Your task to perform on an android device: open app "Google Duo" Image 0: 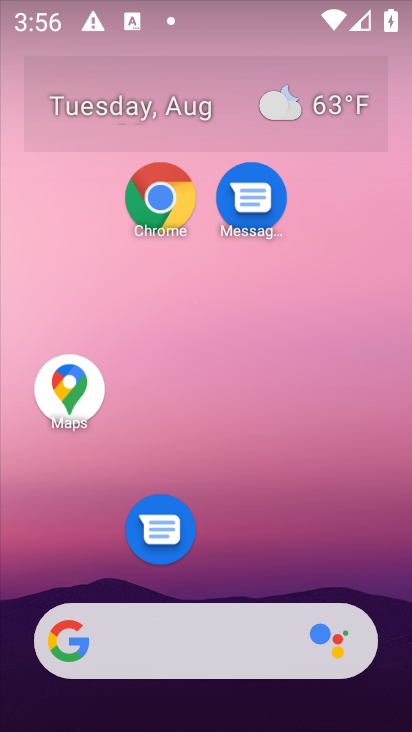
Step 0: drag from (248, 306) to (221, 0)
Your task to perform on an android device: open app "Google Duo" Image 1: 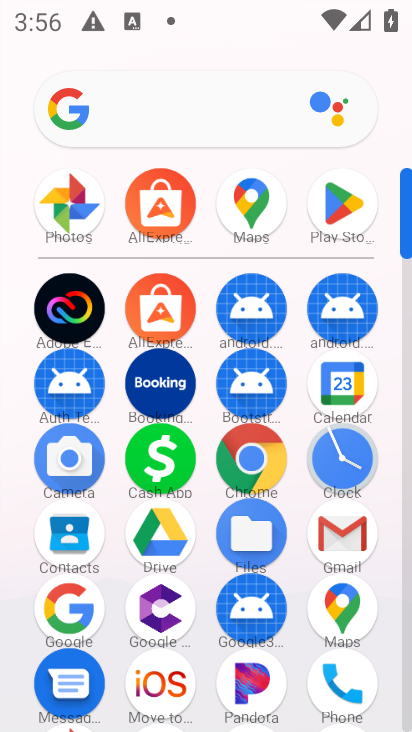
Step 1: click (327, 203)
Your task to perform on an android device: open app "Google Duo" Image 2: 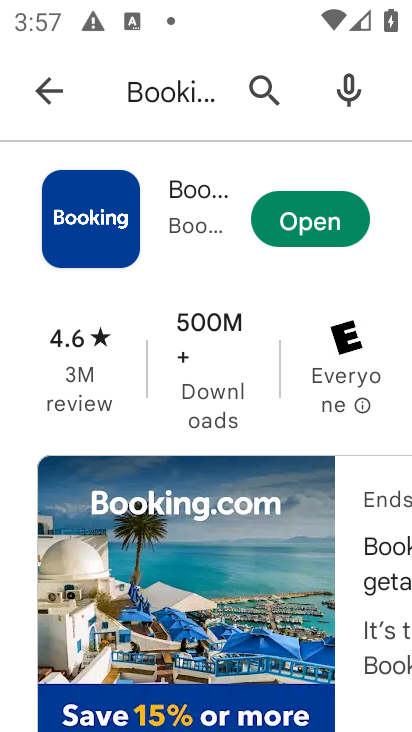
Step 2: press back button
Your task to perform on an android device: open app "Google Duo" Image 3: 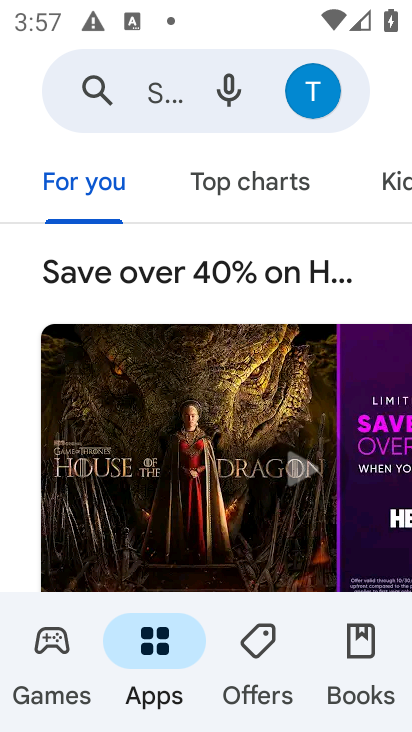
Step 3: click (132, 112)
Your task to perform on an android device: open app "Google Duo" Image 4: 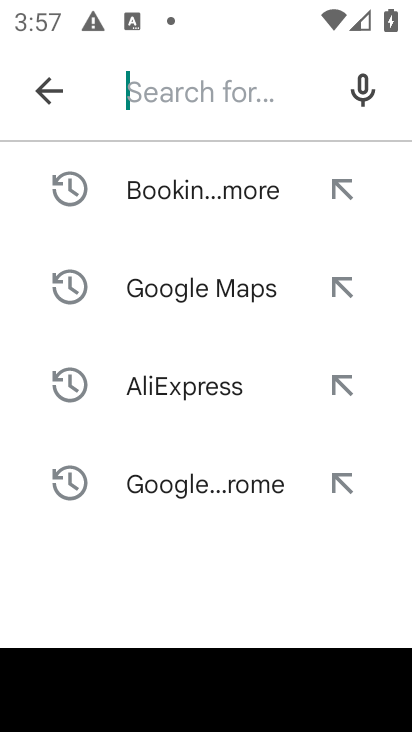
Step 4: type "Google Duo"
Your task to perform on an android device: open app "Google Duo" Image 5: 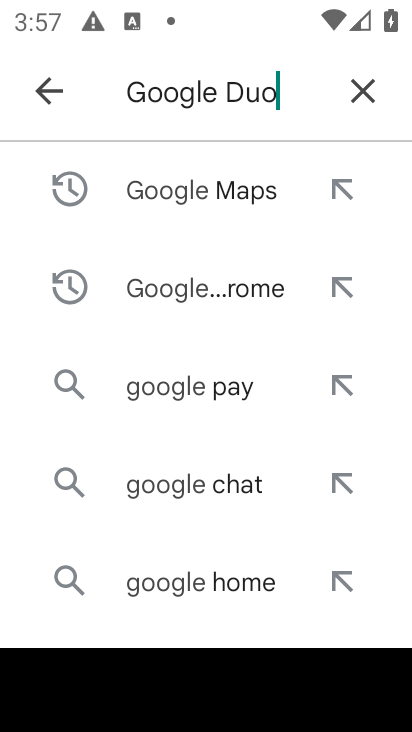
Step 5: press enter
Your task to perform on an android device: open app "Google Duo" Image 6: 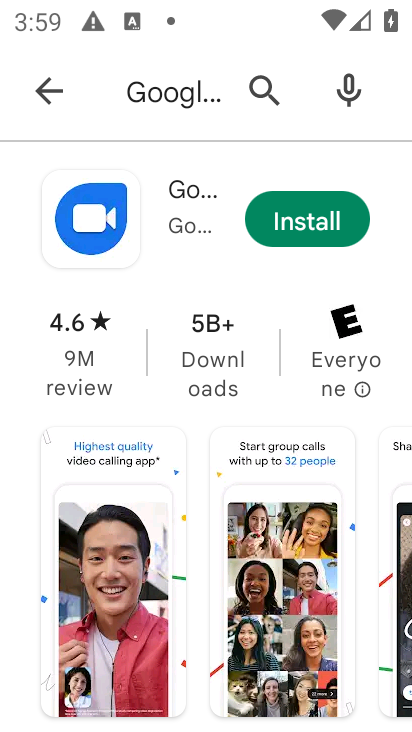
Step 6: task complete